Your task to perform on an android device: open chrome privacy settings Image 0: 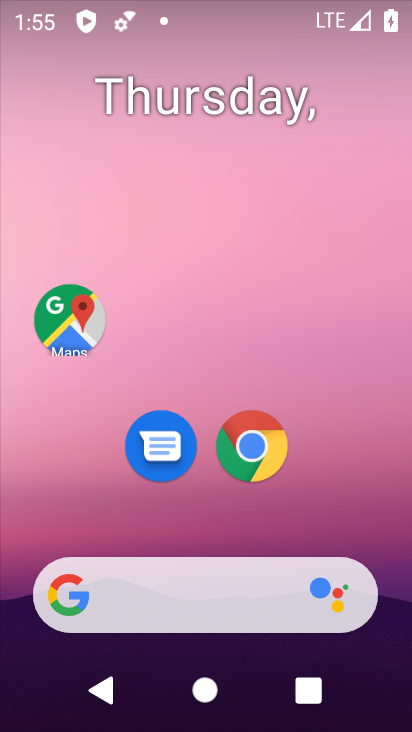
Step 0: drag from (289, 521) to (303, 174)
Your task to perform on an android device: open chrome privacy settings Image 1: 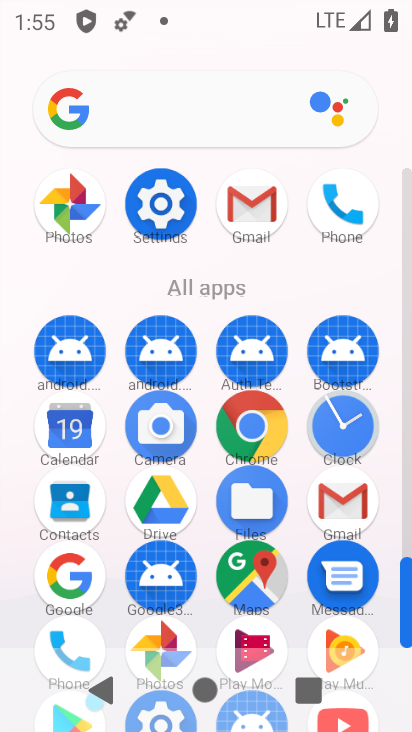
Step 1: click (253, 423)
Your task to perform on an android device: open chrome privacy settings Image 2: 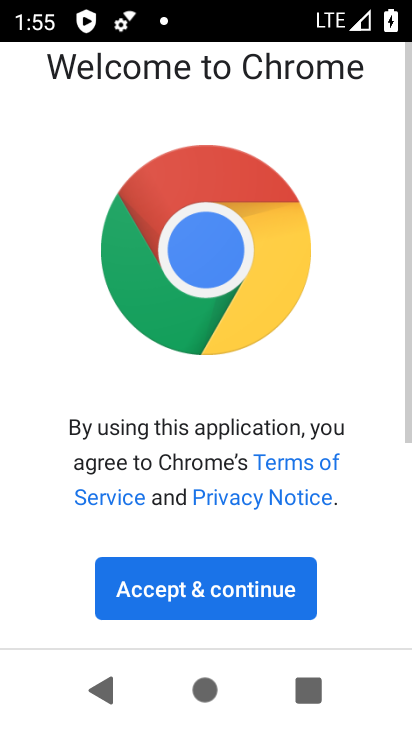
Step 2: click (210, 582)
Your task to perform on an android device: open chrome privacy settings Image 3: 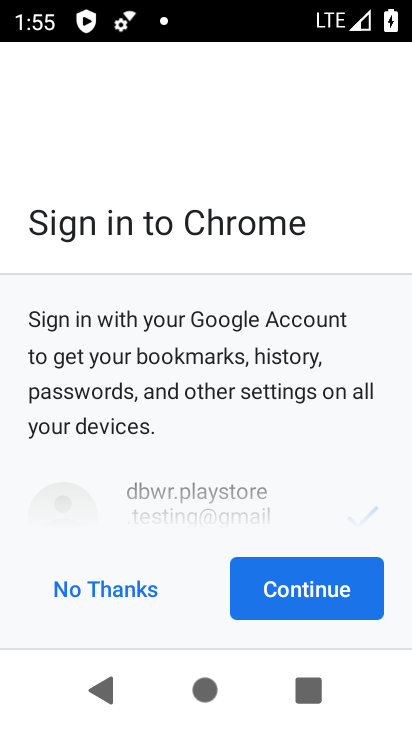
Step 3: click (310, 584)
Your task to perform on an android device: open chrome privacy settings Image 4: 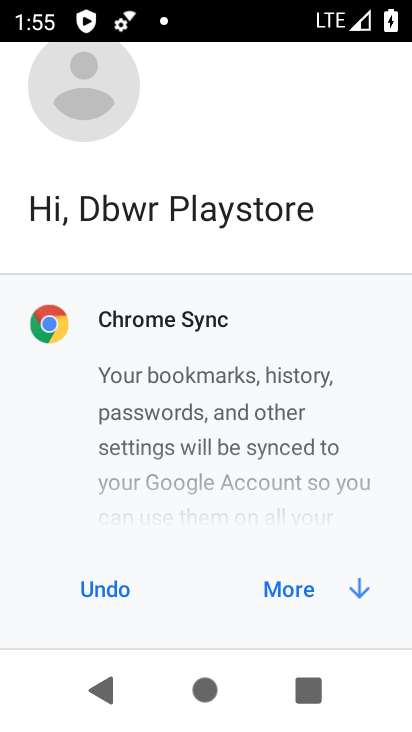
Step 4: click (254, 575)
Your task to perform on an android device: open chrome privacy settings Image 5: 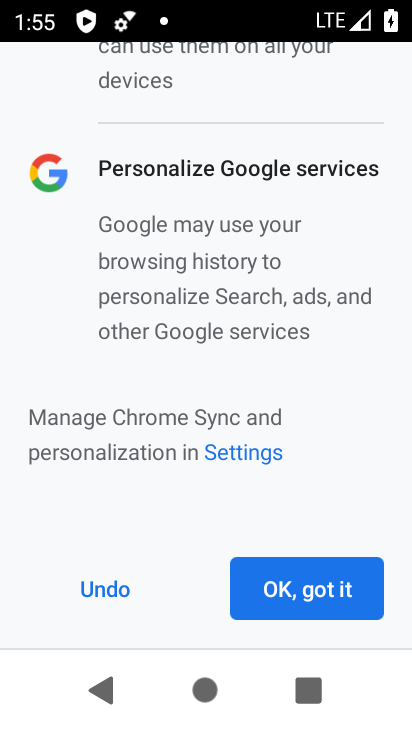
Step 5: click (307, 588)
Your task to perform on an android device: open chrome privacy settings Image 6: 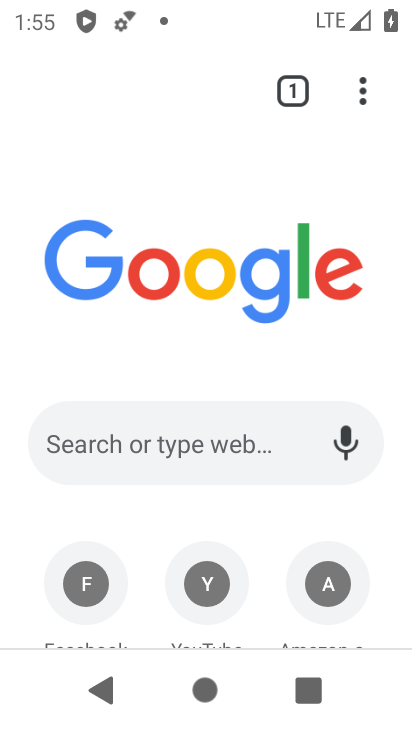
Step 6: click (354, 88)
Your task to perform on an android device: open chrome privacy settings Image 7: 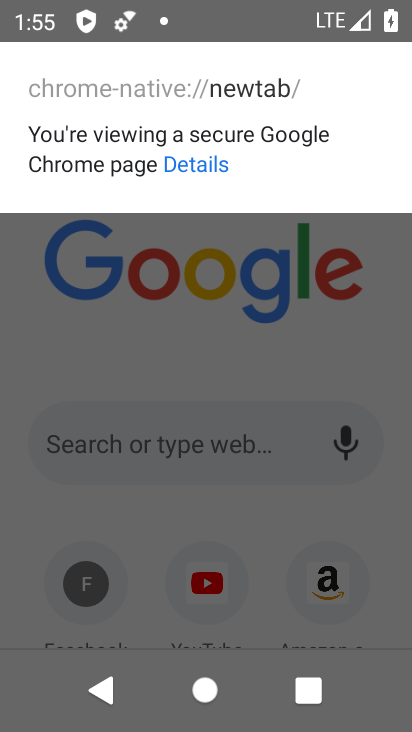
Step 7: press back button
Your task to perform on an android device: open chrome privacy settings Image 8: 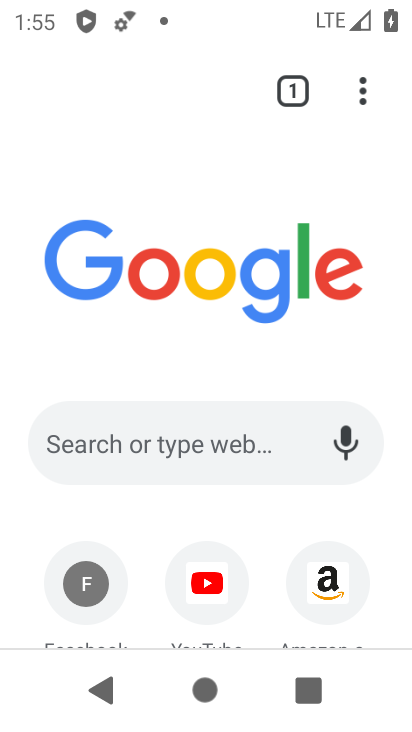
Step 8: click (363, 84)
Your task to perform on an android device: open chrome privacy settings Image 9: 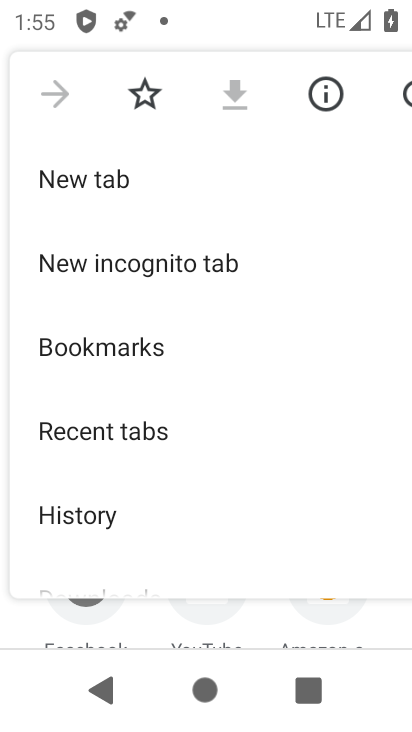
Step 9: drag from (236, 540) to (286, 152)
Your task to perform on an android device: open chrome privacy settings Image 10: 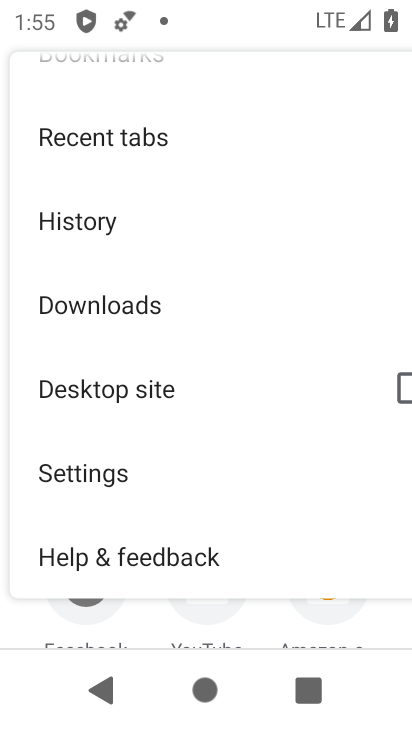
Step 10: click (107, 478)
Your task to perform on an android device: open chrome privacy settings Image 11: 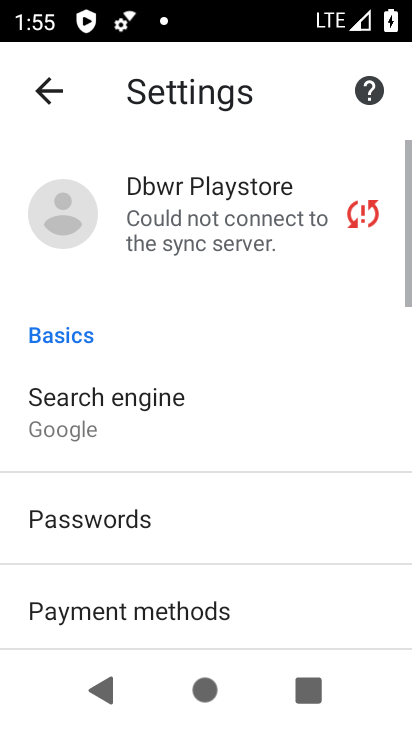
Step 11: drag from (217, 547) to (293, 104)
Your task to perform on an android device: open chrome privacy settings Image 12: 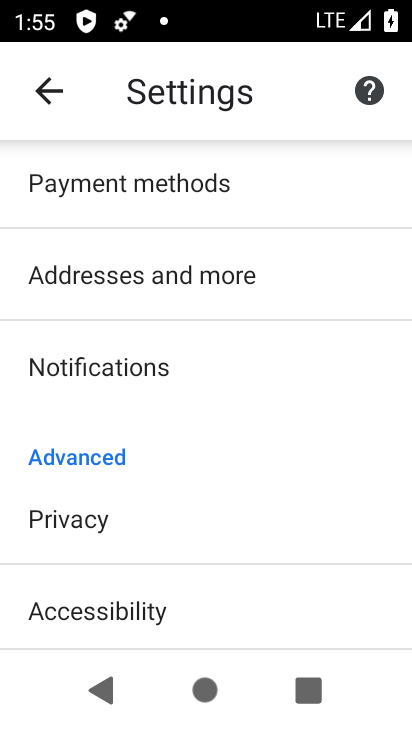
Step 12: click (112, 522)
Your task to perform on an android device: open chrome privacy settings Image 13: 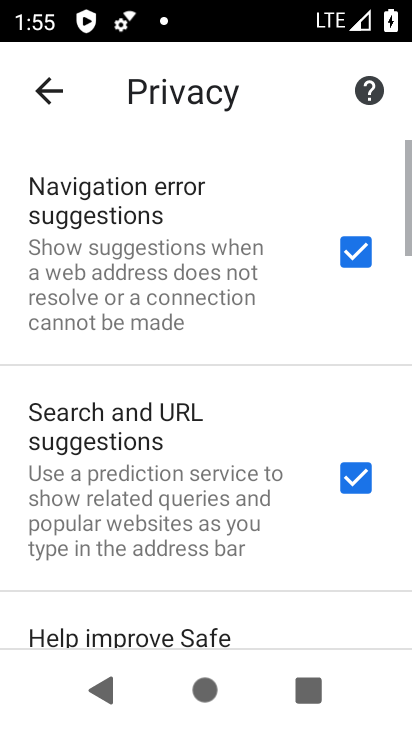
Step 13: task complete